Your task to perform on an android device: Search for duracell triple a on target, select the first entry, and add it to the cart. Image 0: 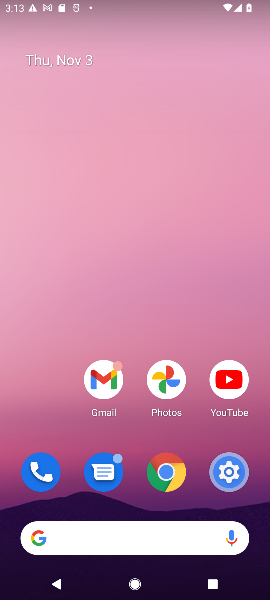
Step 0: click (157, 534)
Your task to perform on an android device: Search for duracell triple a on target, select the first entry, and add it to the cart. Image 1: 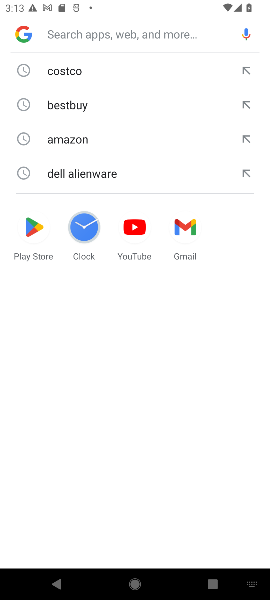
Step 1: type "traget'"
Your task to perform on an android device: Search for duracell triple a on target, select the first entry, and add it to the cart. Image 2: 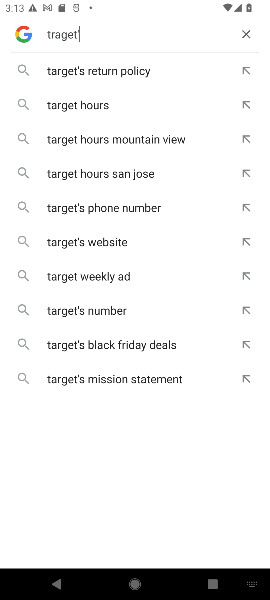
Step 2: click (197, 41)
Your task to perform on an android device: Search for duracell triple a on target, select the first entry, and add it to the cart. Image 3: 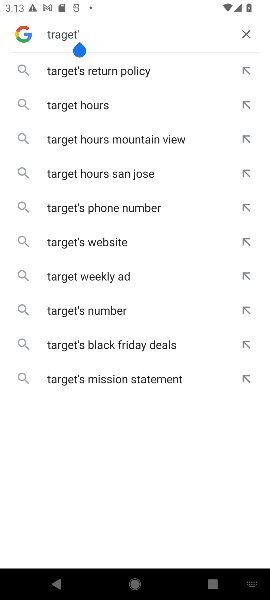
Step 3: click (133, 99)
Your task to perform on an android device: Search for duracell triple a on target, select the first entry, and add it to the cart. Image 4: 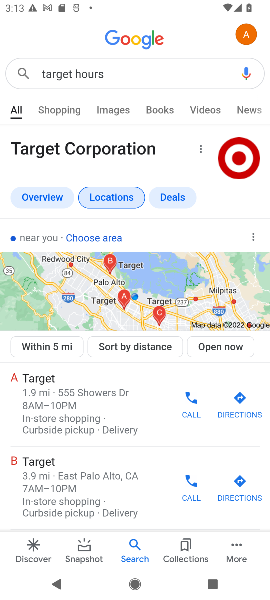
Step 4: click (123, 147)
Your task to perform on an android device: Search for duracell triple a on target, select the first entry, and add it to the cart. Image 5: 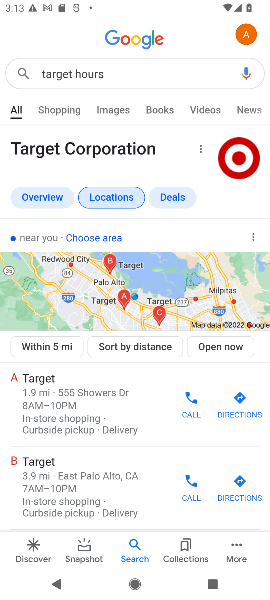
Step 5: drag from (61, 418) to (50, 52)
Your task to perform on an android device: Search for duracell triple a on target, select the first entry, and add it to the cart. Image 6: 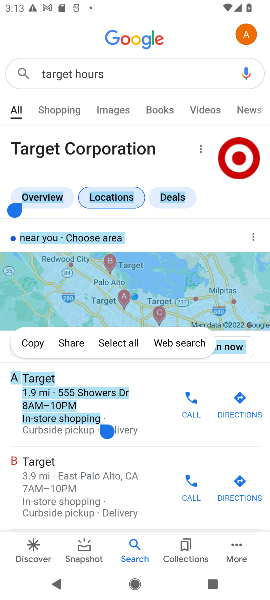
Step 6: click (159, 445)
Your task to perform on an android device: Search for duracell triple a on target, select the first entry, and add it to the cart. Image 7: 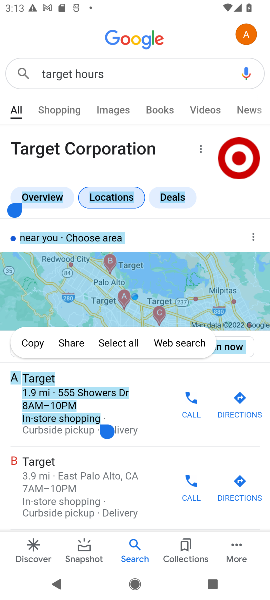
Step 7: task complete